Your task to perform on an android device: Search for pizza restaurants on Maps Image 0: 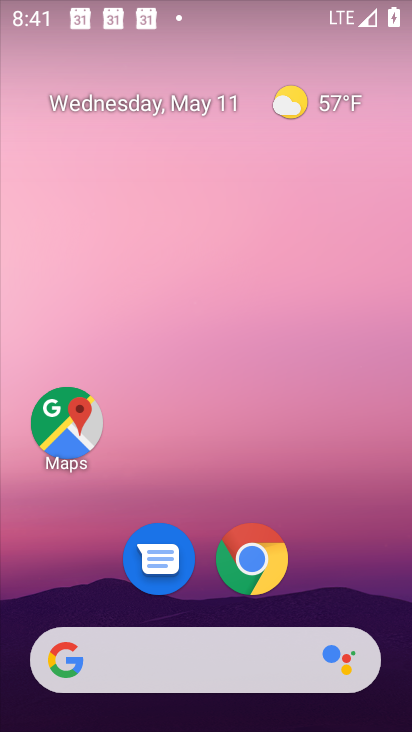
Step 0: press home button
Your task to perform on an android device: Search for pizza restaurants on Maps Image 1: 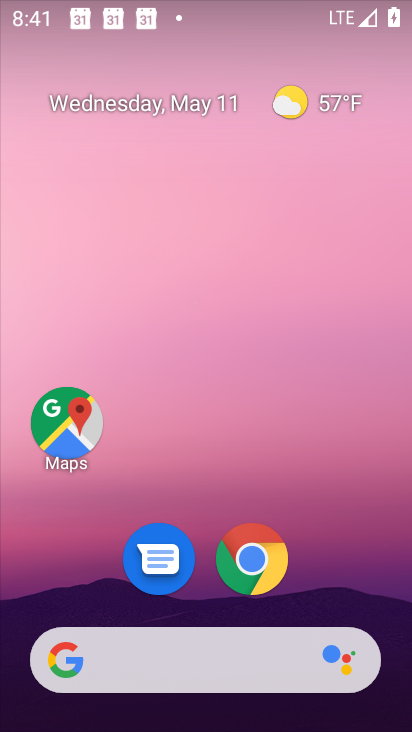
Step 1: click (67, 420)
Your task to perform on an android device: Search for pizza restaurants on Maps Image 2: 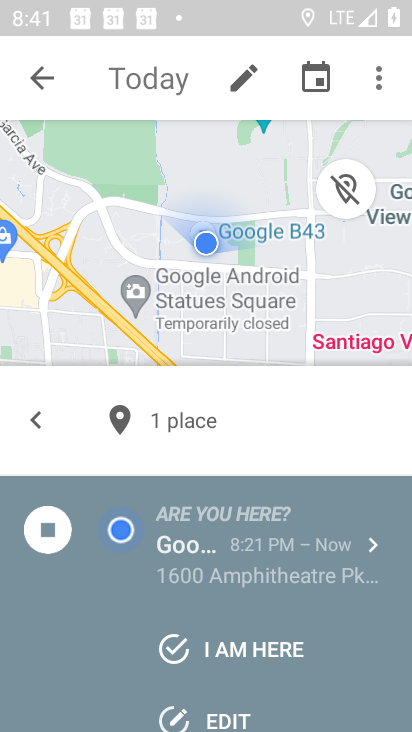
Step 2: click (37, 57)
Your task to perform on an android device: Search for pizza restaurants on Maps Image 3: 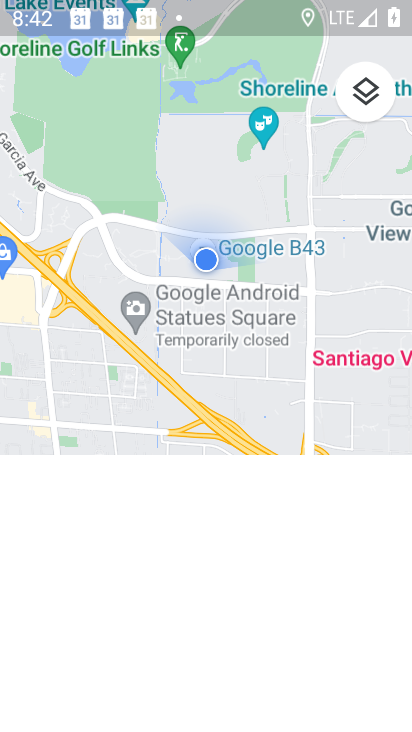
Step 3: click (37, 57)
Your task to perform on an android device: Search for pizza restaurants on Maps Image 4: 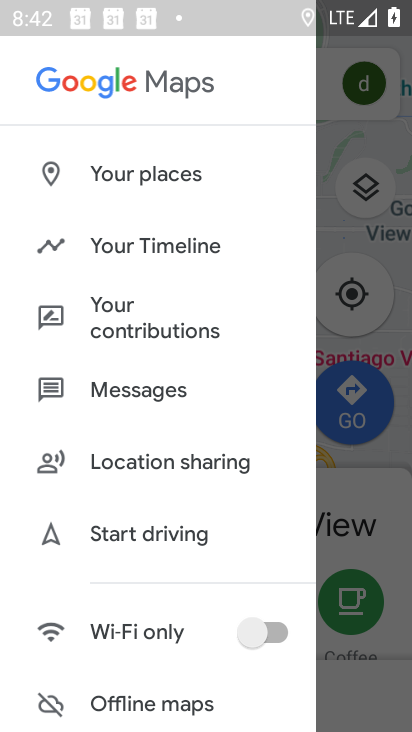
Step 4: click (336, 93)
Your task to perform on an android device: Search for pizza restaurants on Maps Image 5: 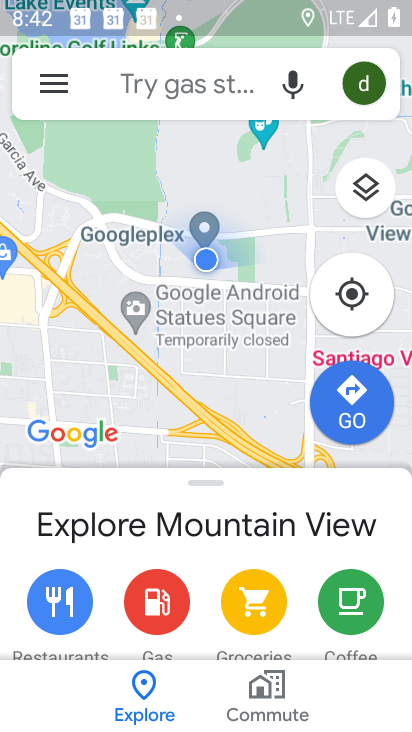
Step 5: click (229, 103)
Your task to perform on an android device: Search for pizza restaurants on Maps Image 6: 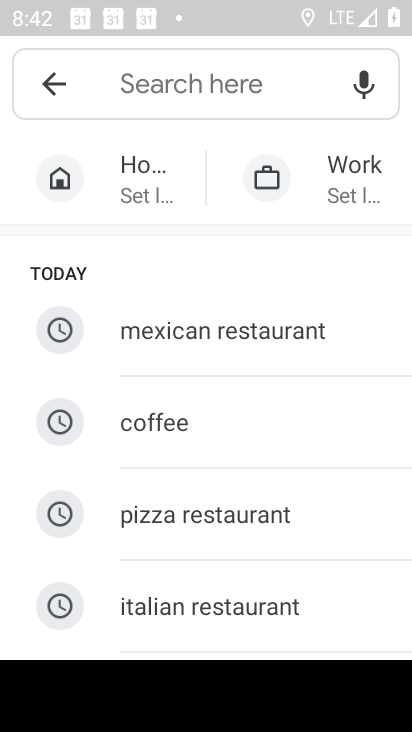
Step 6: type " pizza restaurants"
Your task to perform on an android device: Search for pizza restaurants on Maps Image 7: 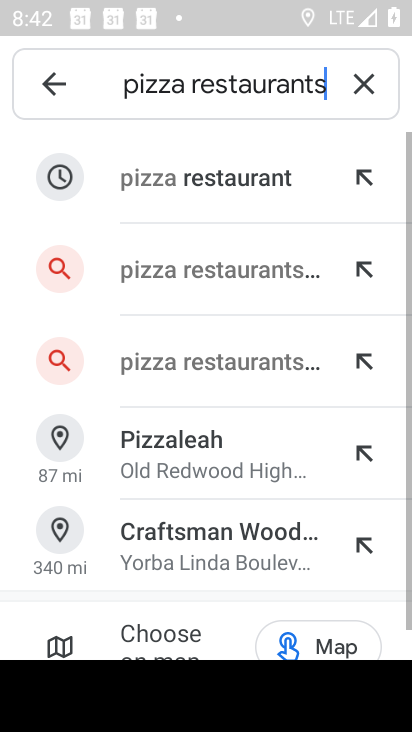
Step 7: click (157, 166)
Your task to perform on an android device: Search for pizza restaurants on Maps Image 8: 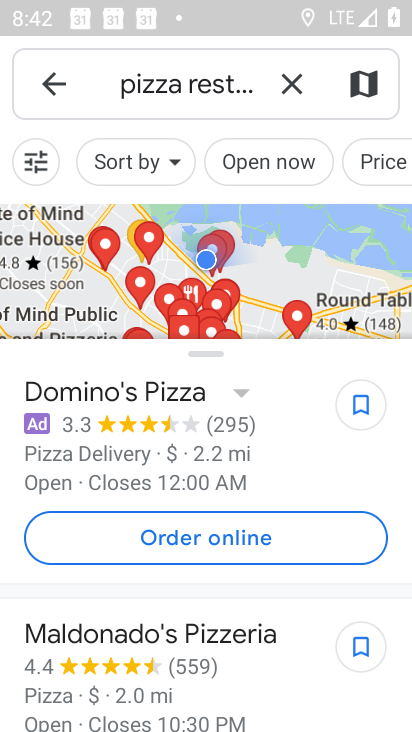
Step 8: task complete